Your task to perform on an android device: turn on airplane mode Image 0: 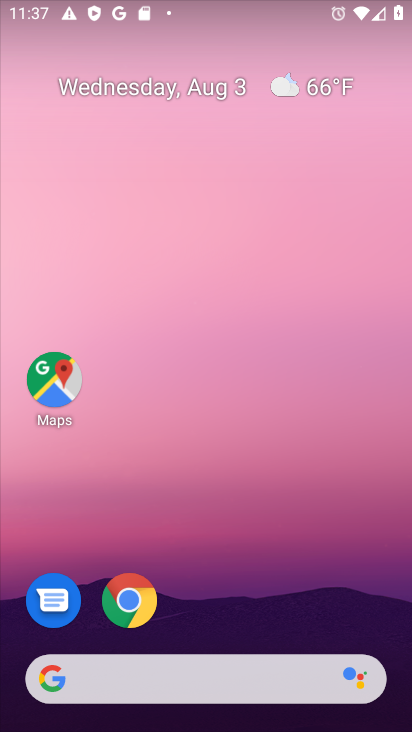
Step 0: drag from (278, 632) to (117, 28)
Your task to perform on an android device: turn on airplane mode Image 1: 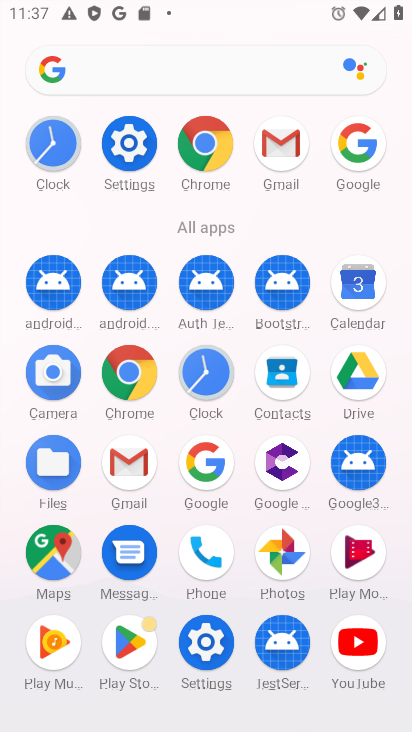
Step 1: click (114, 124)
Your task to perform on an android device: turn on airplane mode Image 2: 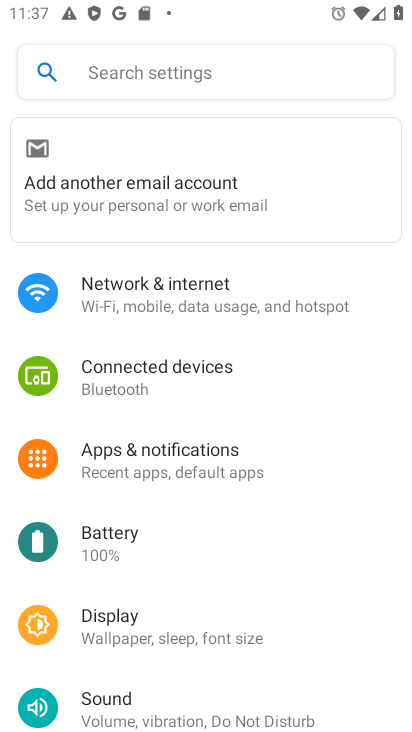
Step 2: click (173, 271)
Your task to perform on an android device: turn on airplane mode Image 3: 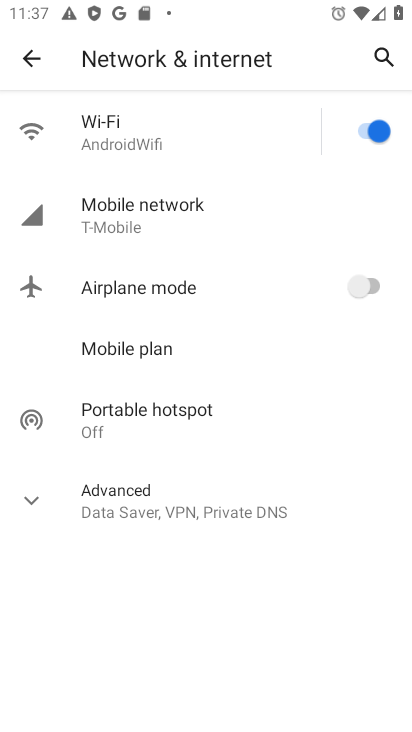
Step 3: click (363, 289)
Your task to perform on an android device: turn on airplane mode Image 4: 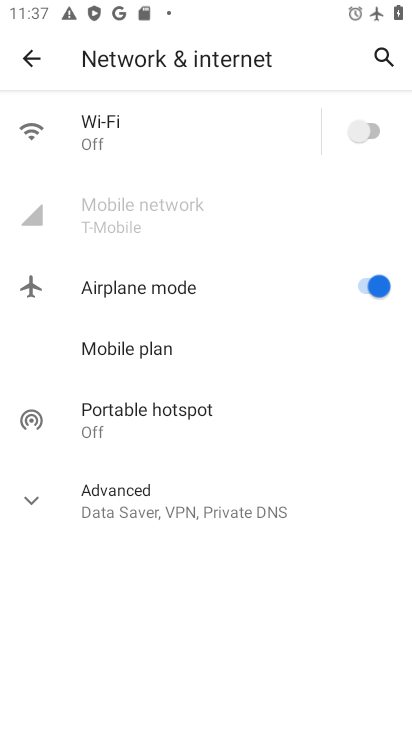
Step 4: task complete